Your task to perform on an android device: turn off translation in the chrome app Image 0: 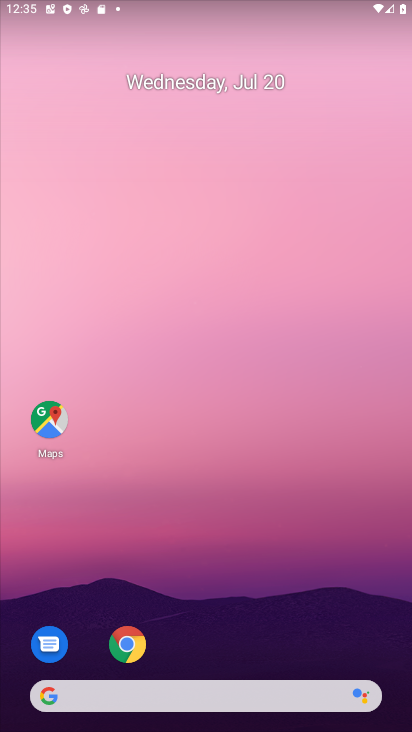
Step 0: press home button
Your task to perform on an android device: turn off translation in the chrome app Image 1: 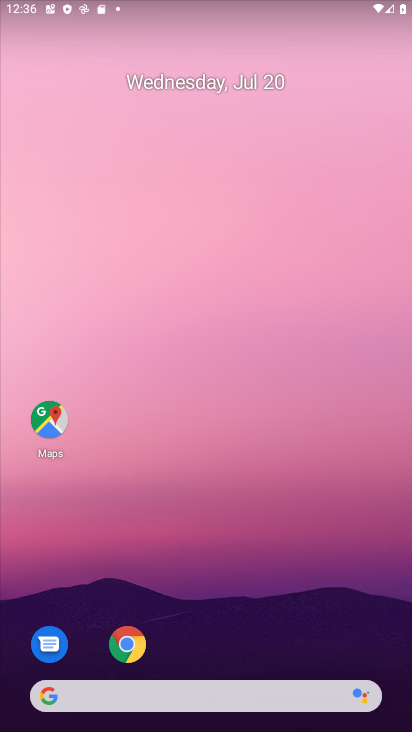
Step 1: task complete